Your task to perform on an android device: turn off sleep mode Image 0: 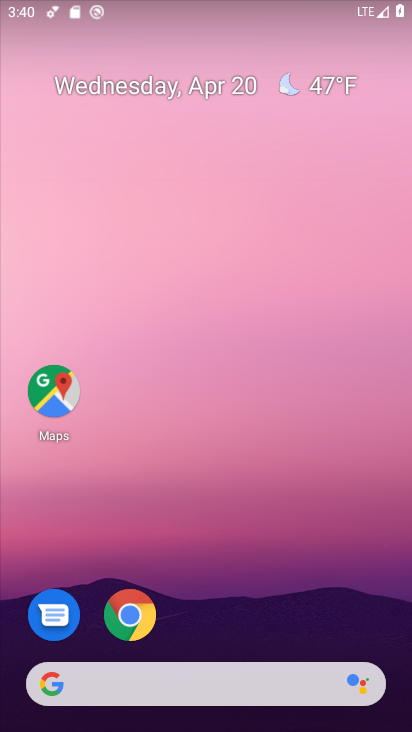
Step 0: drag from (228, 632) to (257, 217)
Your task to perform on an android device: turn off sleep mode Image 1: 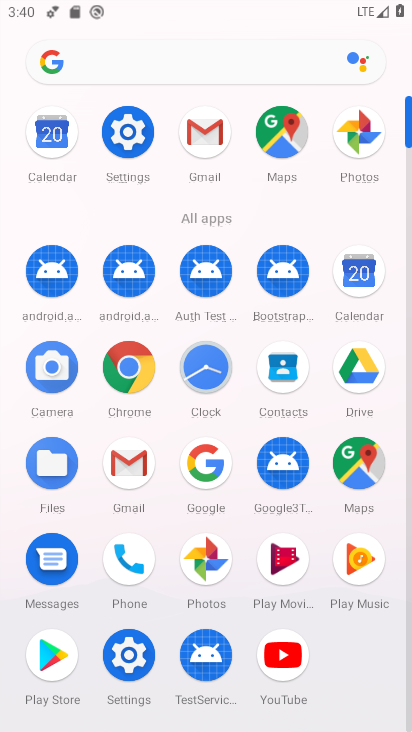
Step 1: click (139, 127)
Your task to perform on an android device: turn off sleep mode Image 2: 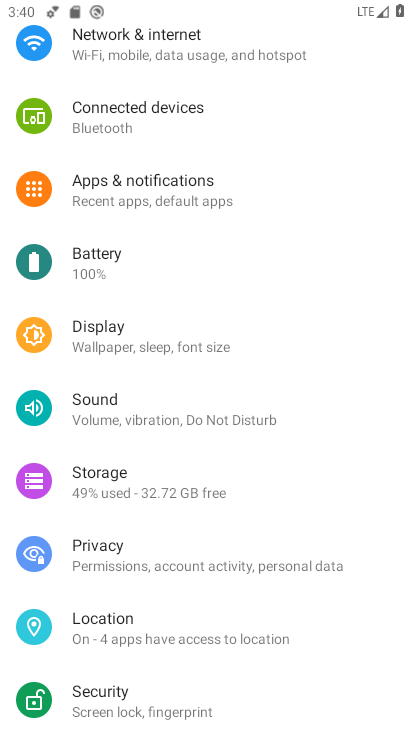
Step 2: click (140, 342)
Your task to perform on an android device: turn off sleep mode Image 3: 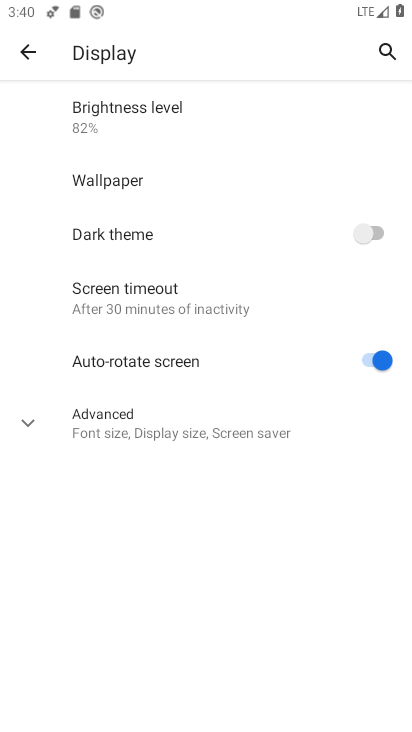
Step 3: click (178, 294)
Your task to perform on an android device: turn off sleep mode Image 4: 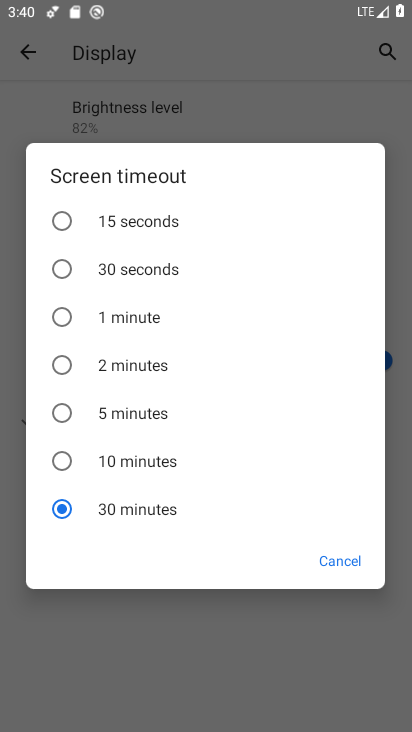
Step 4: click (130, 364)
Your task to perform on an android device: turn off sleep mode Image 5: 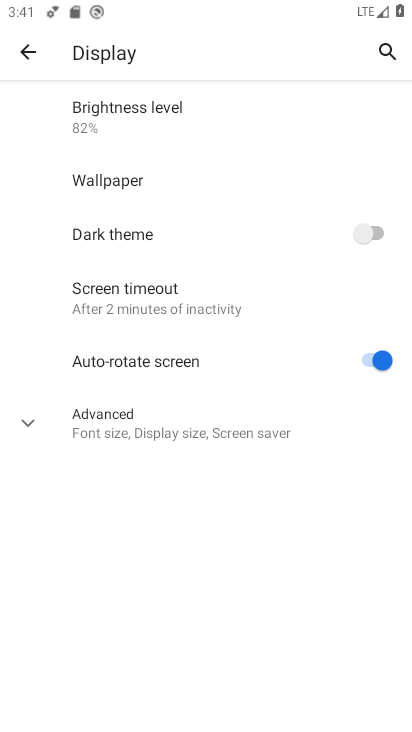
Step 5: task complete